Your task to perform on an android device: Open calendar and show me the first week of next month Image 0: 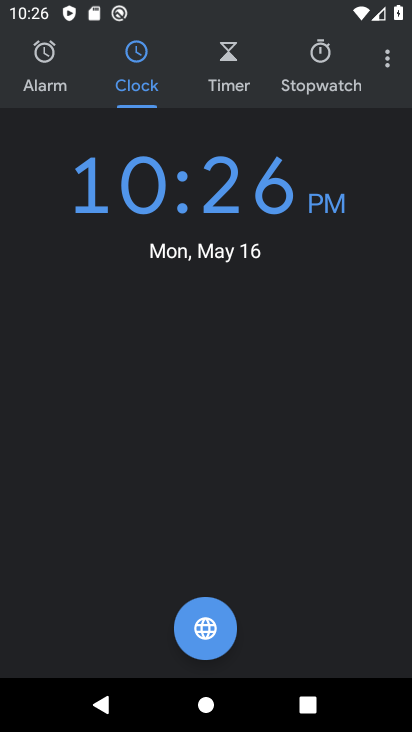
Step 0: press home button
Your task to perform on an android device: Open calendar and show me the first week of next month Image 1: 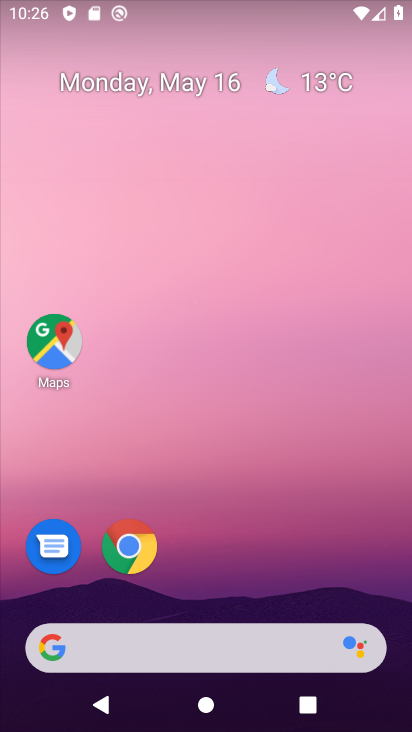
Step 1: drag from (256, 588) to (252, 60)
Your task to perform on an android device: Open calendar and show me the first week of next month Image 2: 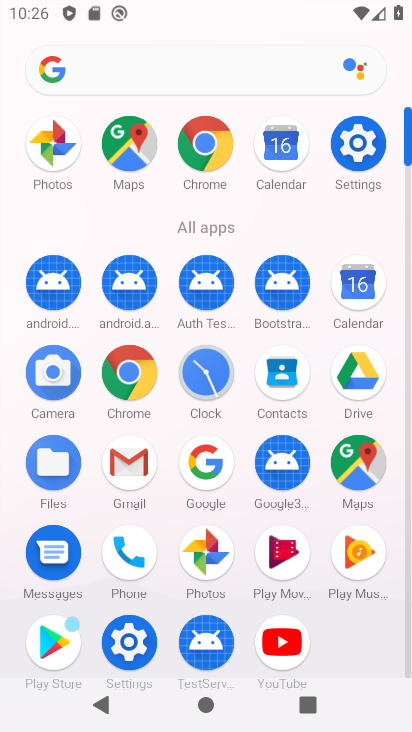
Step 2: click (360, 301)
Your task to perform on an android device: Open calendar and show me the first week of next month Image 3: 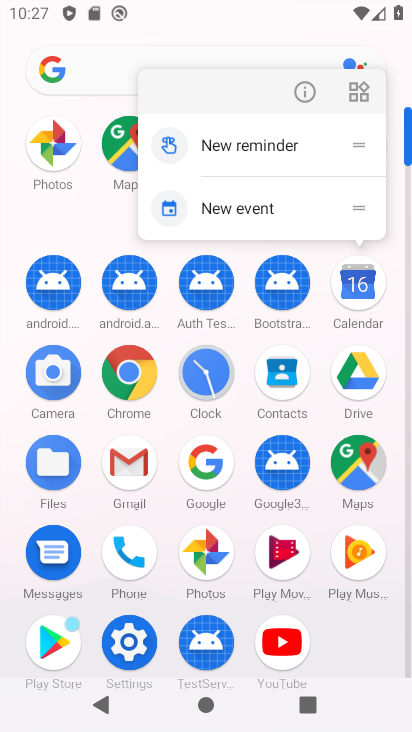
Step 3: click (360, 304)
Your task to perform on an android device: Open calendar and show me the first week of next month Image 4: 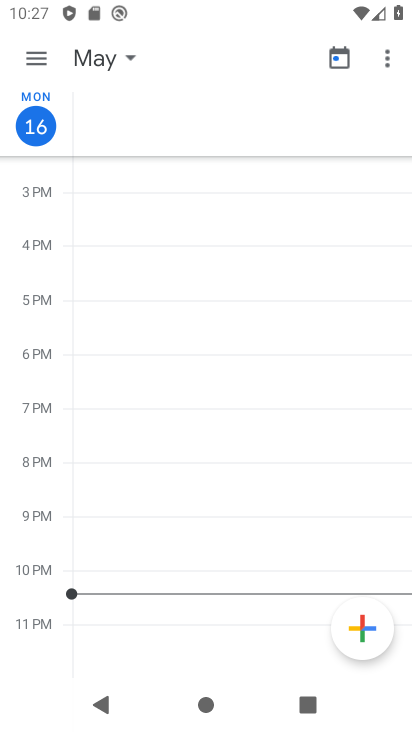
Step 4: click (91, 56)
Your task to perform on an android device: Open calendar and show me the first week of next month Image 5: 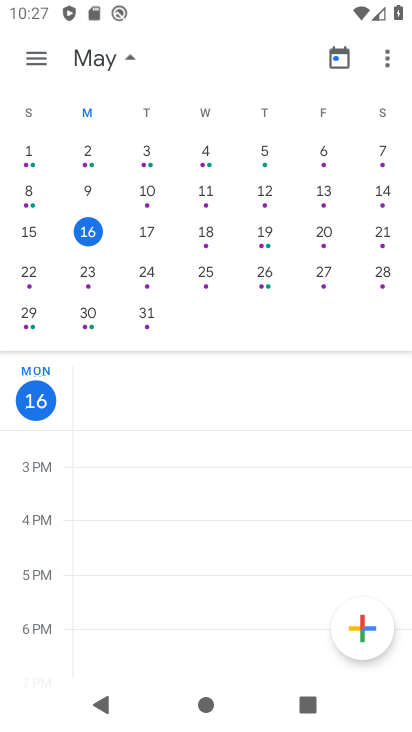
Step 5: drag from (307, 244) to (4, 198)
Your task to perform on an android device: Open calendar and show me the first week of next month Image 6: 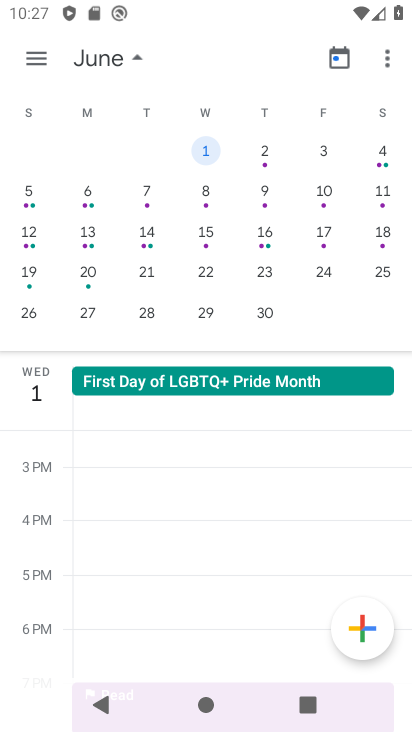
Step 6: click (145, 191)
Your task to perform on an android device: Open calendar and show me the first week of next month Image 7: 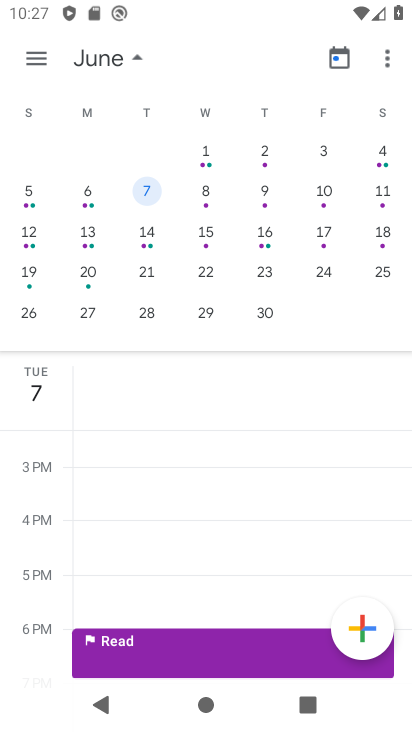
Step 7: task complete